Your task to perform on an android device: visit the assistant section in the google photos Image 0: 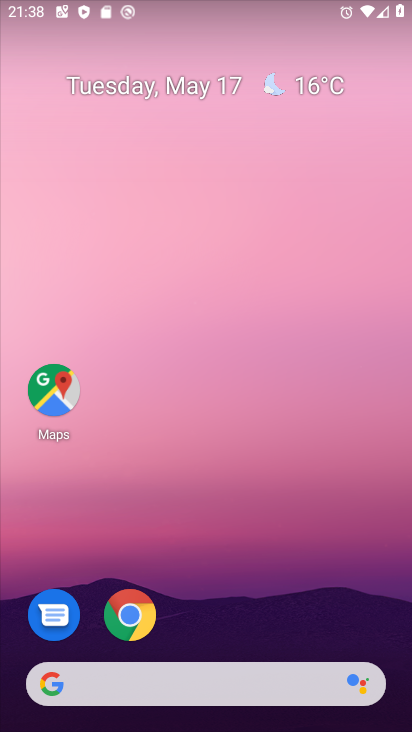
Step 0: drag from (359, 518) to (314, 6)
Your task to perform on an android device: visit the assistant section in the google photos Image 1: 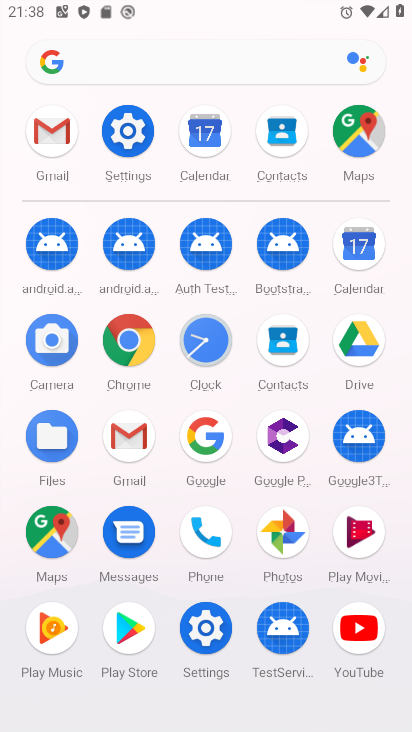
Step 1: click (261, 519)
Your task to perform on an android device: visit the assistant section in the google photos Image 2: 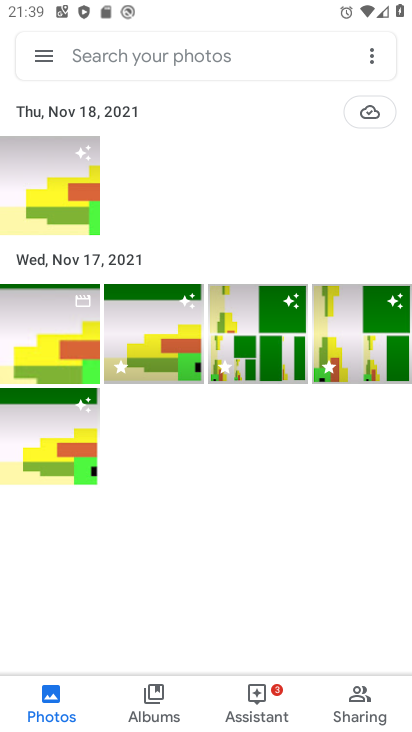
Step 2: click (274, 700)
Your task to perform on an android device: visit the assistant section in the google photos Image 3: 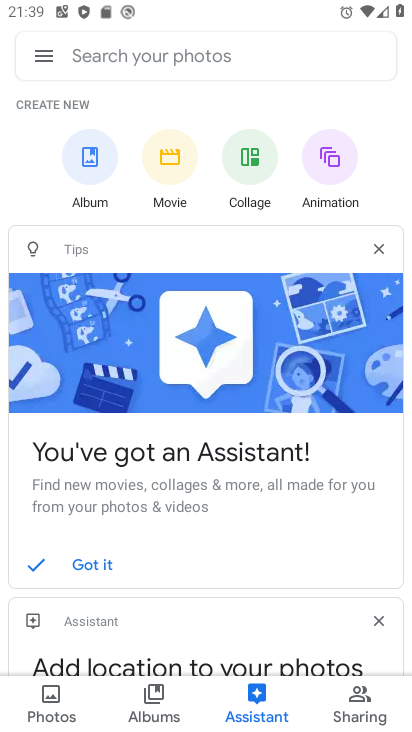
Step 3: task complete